Your task to perform on an android device: Open notification settings Image 0: 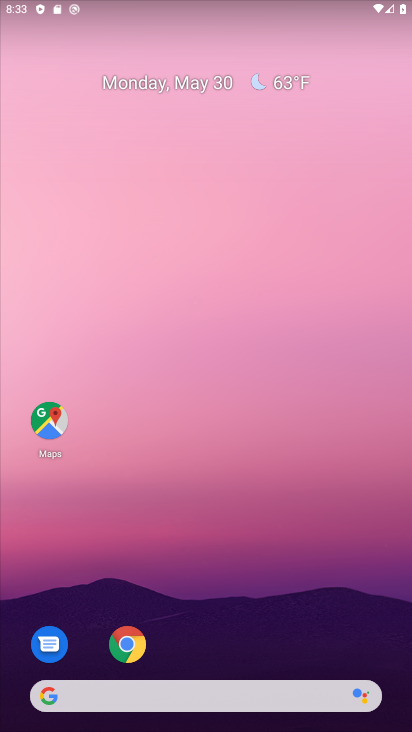
Step 0: drag from (229, 625) to (274, 61)
Your task to perform on an android device: Open notification settings Image 1: 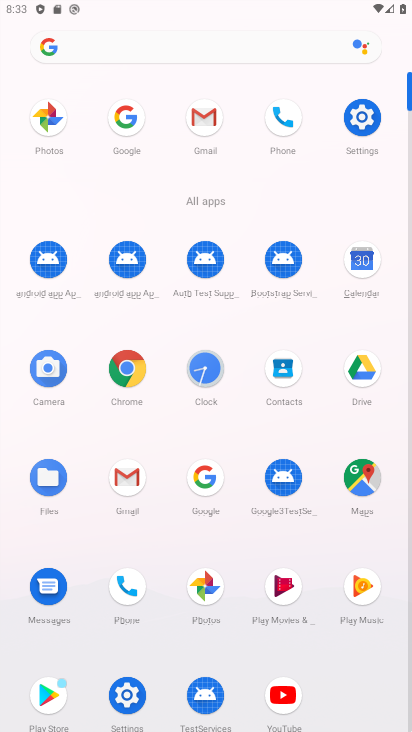
Step 1: click (364, 119)
Your task to perform on an android device: Open notification settings Image 2: 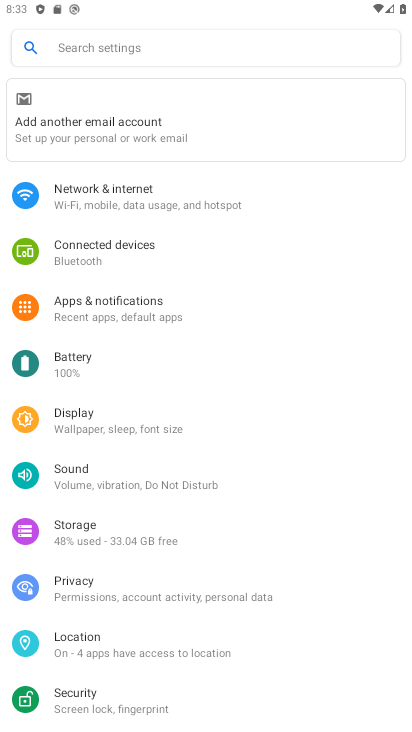
Step 2: click (120, 316)
Your task to perform on an android device: Open notification settings Image 3: 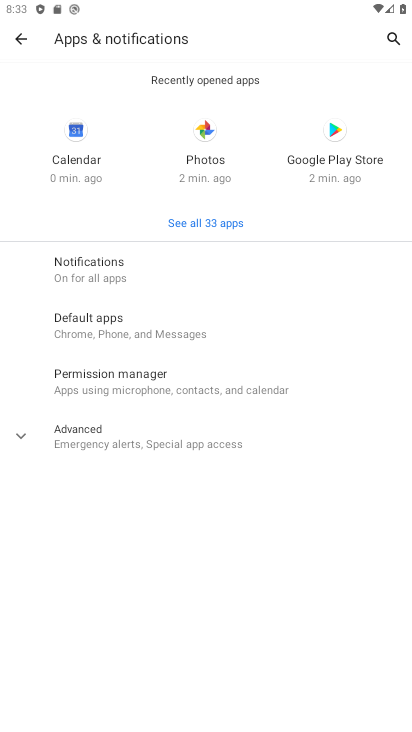
Step 3: click (103, 279)
Your task to perform on an android device: Open notification settings Image 4: 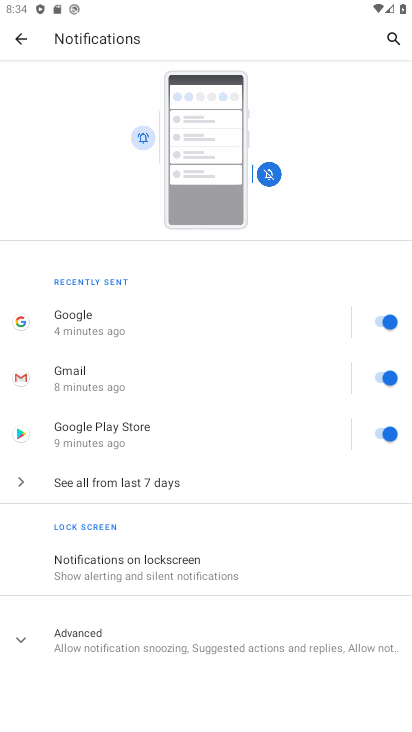
Step 4: task complete